Your task to perform on an android device: toggle javascript in the chrome app Image 0: 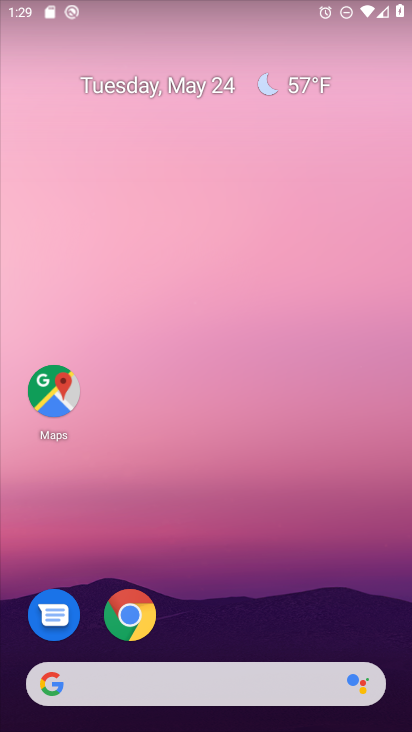
Step 0: click (143, 615)
Your task to perform on an android device: toggle javascript in the chrome app Image 1: 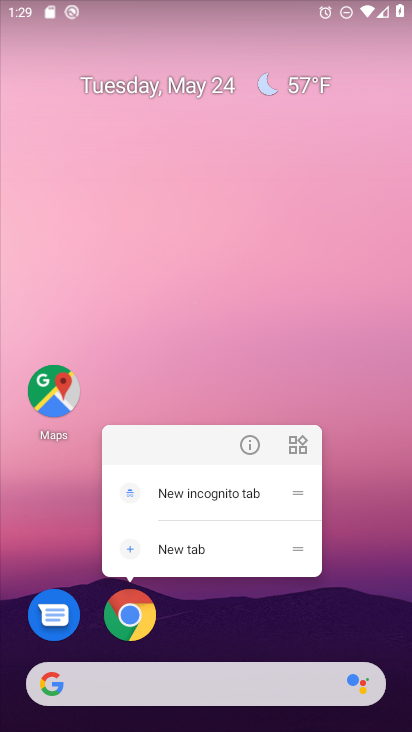
Step 1: click (146, 596)
Your task to perform on an android device: toggle javascript in the chrome app Image 2: 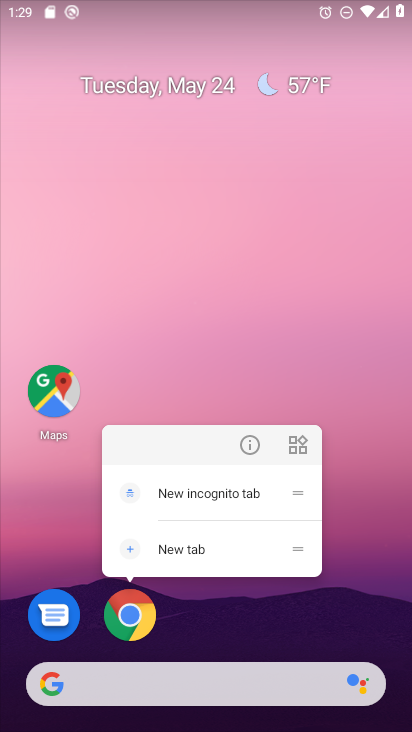
Step 2: click (115, 605)
Your task to perform on an android device: toggle javascript in the chrome app Image 3: 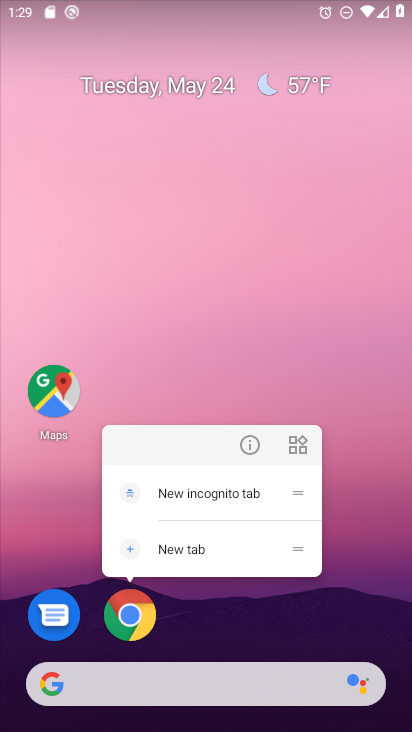
Step 3: click (118, 612)
Your task to perform on an android device: toggle javascript in the chrome app Image 4: 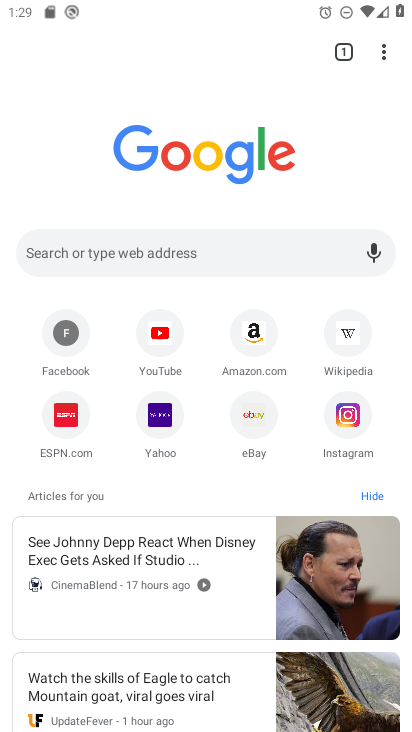
Step 4: click (394, 57)
Your task to perform on an android device: toggle javascript in the chrome app Image 5: 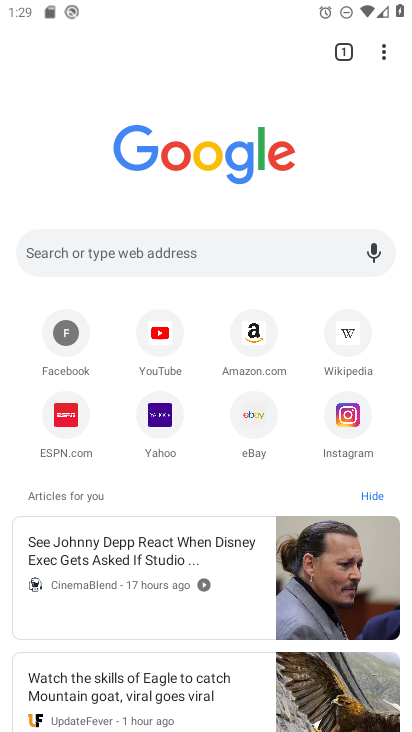
Step 5: click (373, 38)
Your task to perform on an android device: toggle javascript in the chrome app Image 6: 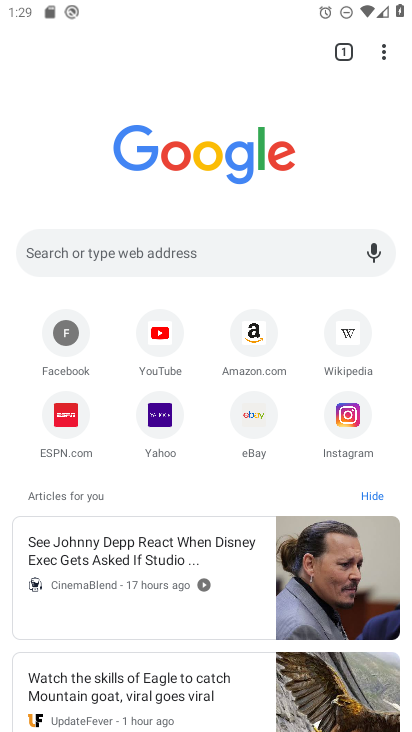
Step 6: click (383, 54)
Your task to perform on an android device: toggle javascript in the chrome app Image 7: 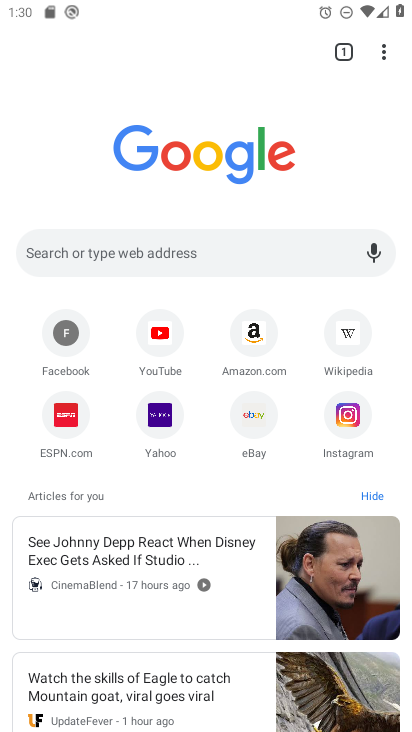
Step 7: click (380, 43)
Your task to perform on an android device: toggle javascript in the chrome app Image 8: 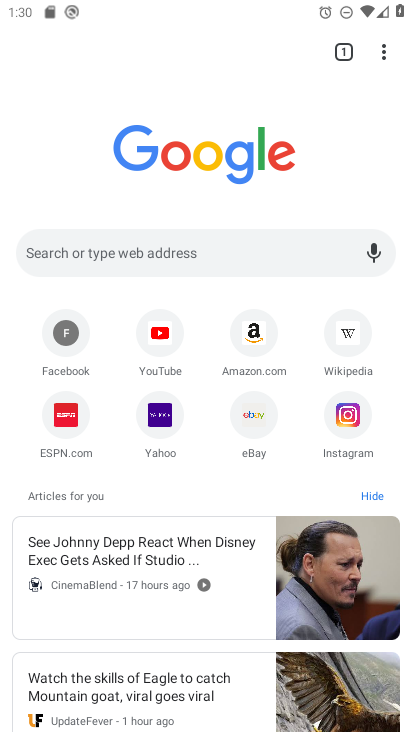
Step 8: click (385, 54)
Your task to perform on an android device: toggle javascript in the chrome app Image 9: 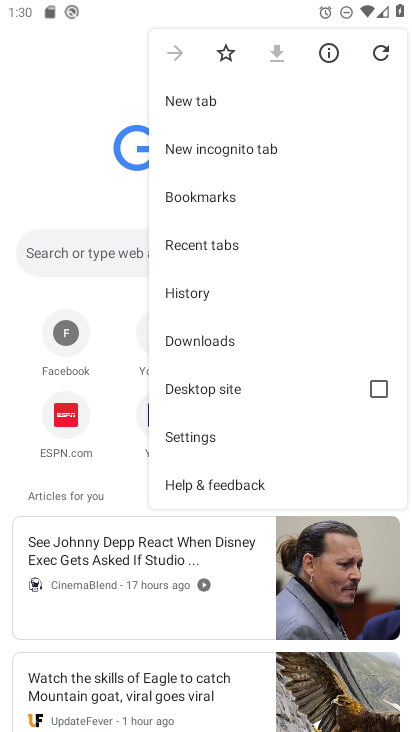
Step 9: click (194, 431)
Your task to perform on an android device: toggle javascript in the chrome app Image 10: 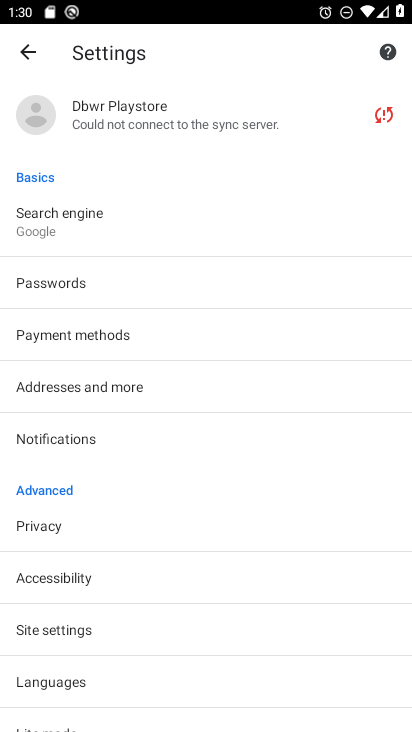
Step 10: click (71, 629)
Your task to perform on an android device: toggle javascript in the chrome app Image 11: 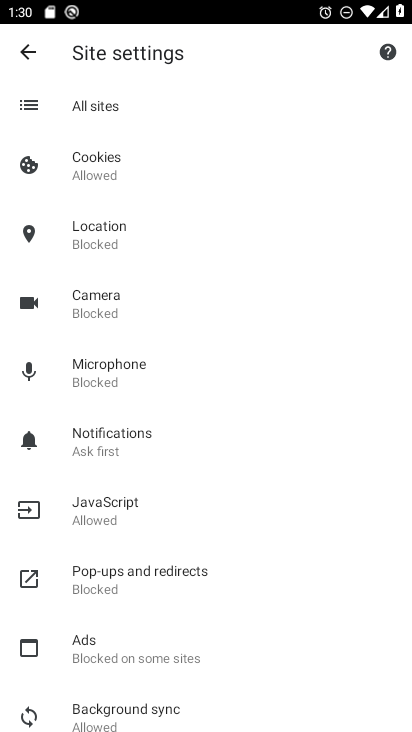
Step 11: click (115, 514)
Your task to perform on an android device: toggle javascript in the chrome app Image 12: 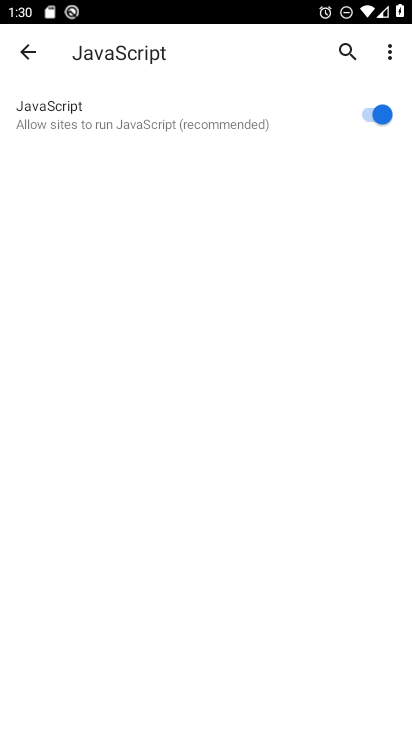
Step 12: click (368, 117)
Your task to perform on an android device: toggle javascript in the chrome app Image 13: 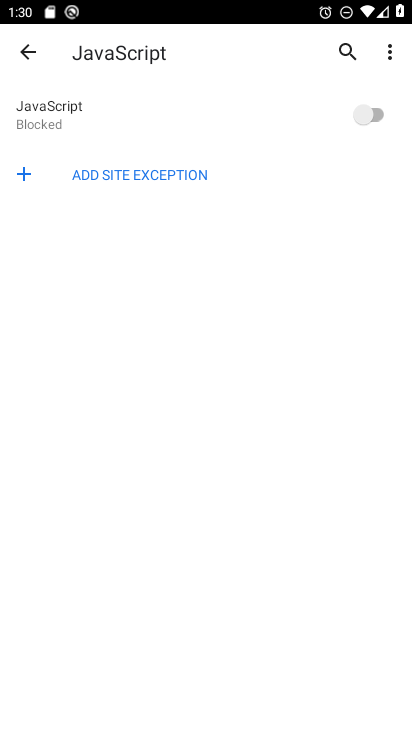
Step 13: task complete